Your task to perform on an android device: toggle notification dots Image 0: 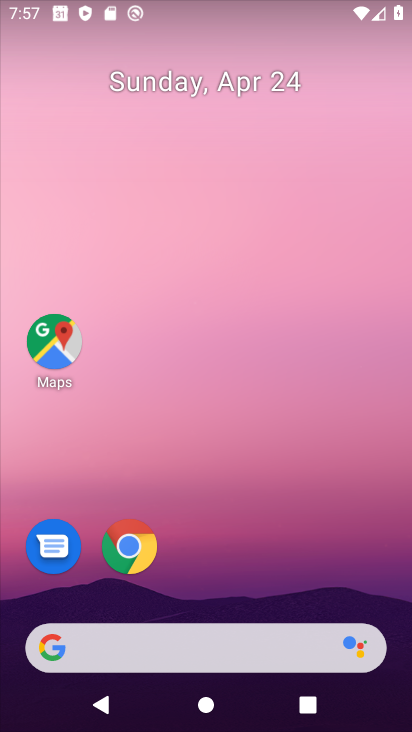
Step 0: drag from (255, 586) to (310, 69)
Your task to perform on an android device: toggle notification dots Image 1: 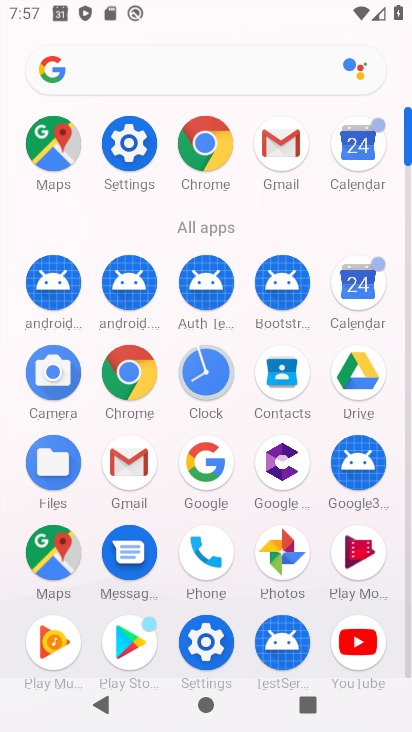
Step 1: click (146, 159)
Your task to perform on an android device: toggle notification dots Image 2: 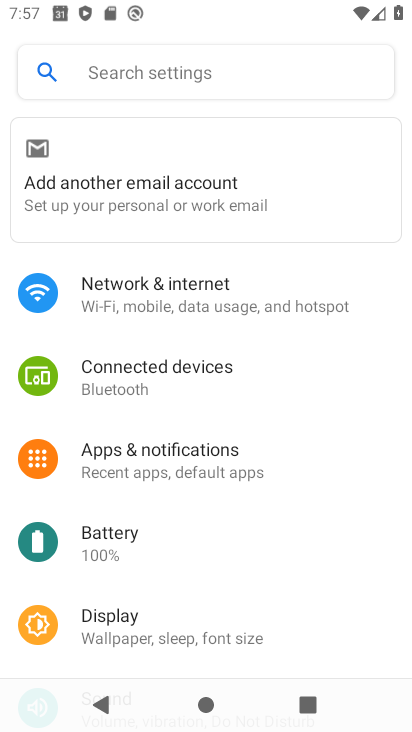
Step 2: click (209, 457)
Your task to perform on an android device: toggle notification dots Image 3: 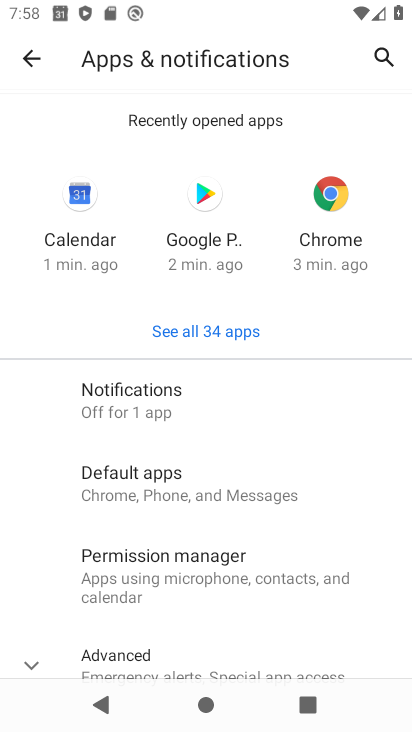
Step 3: drag from (178, 416) to (258, 188)
Your task to perform on an android device: toggle notification dots Image 4: 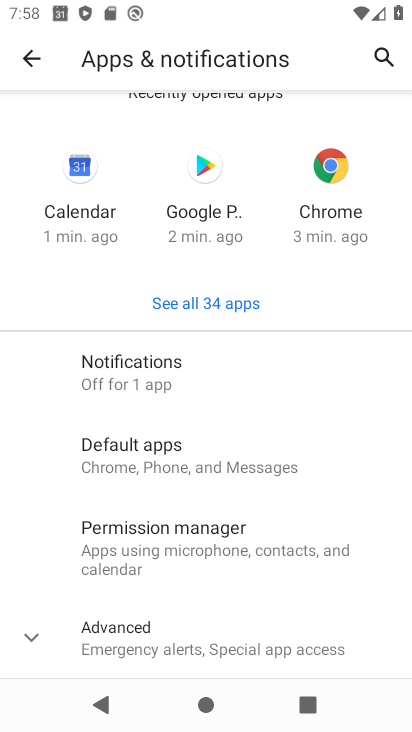
Step 4: click (167, 641)
Your task to perform on an android device: toggle notification dots Image 5: 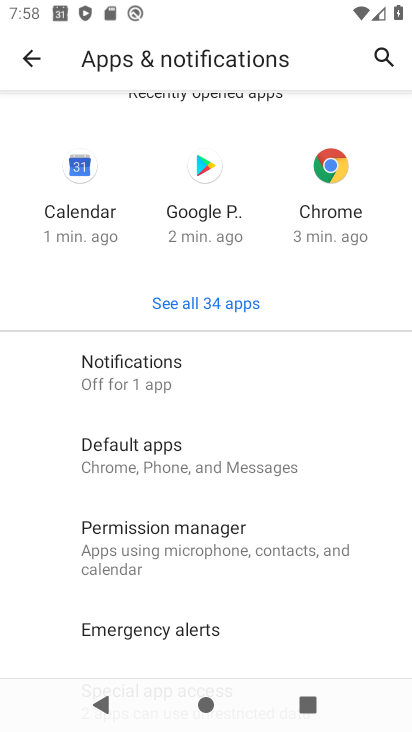
Step 5: drag from (182, 623) to (256, 433)
Your task to perform on an android device: toggle notification dots Image 6: 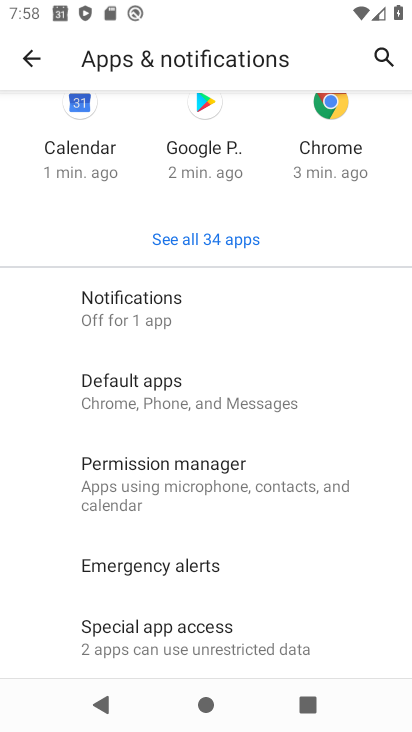
Step 6: drag from (256, 554) to (328, 250)
Your task to perform on an android device: toggle notification dots Image 7: 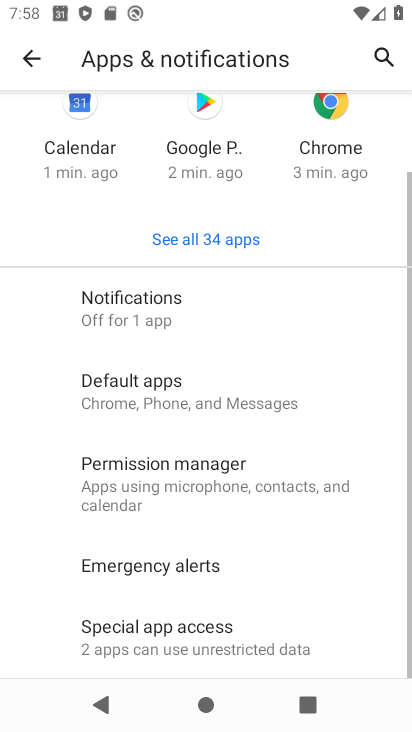
Step 7: click (221, 307)
Your task to perform on an android device: toggle notification dots Image 8: 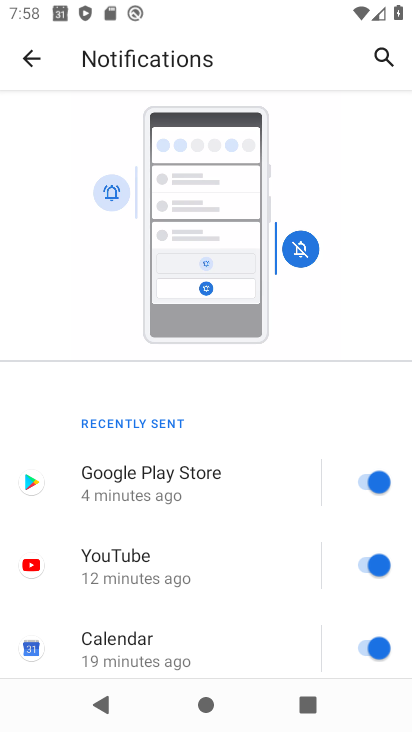
Step 8: drag from (169, 634) to (241, 345)
Your task to perform on an android device: toggle notification dots Image 9: 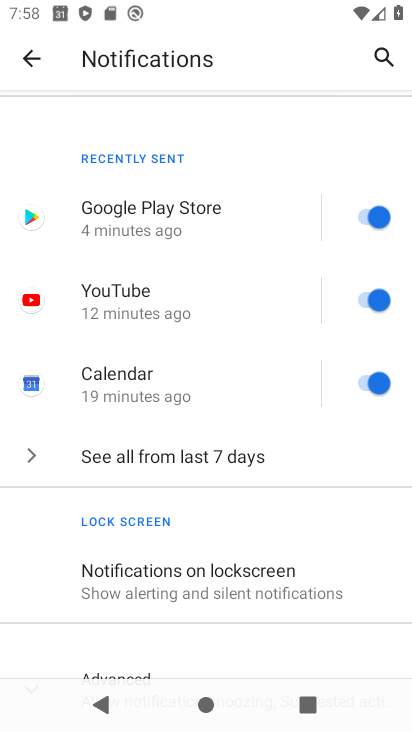
Step 9: drag from (238, 631) to (294, 209)
Your task to perform on an android device: toggle notification dots Image 10: 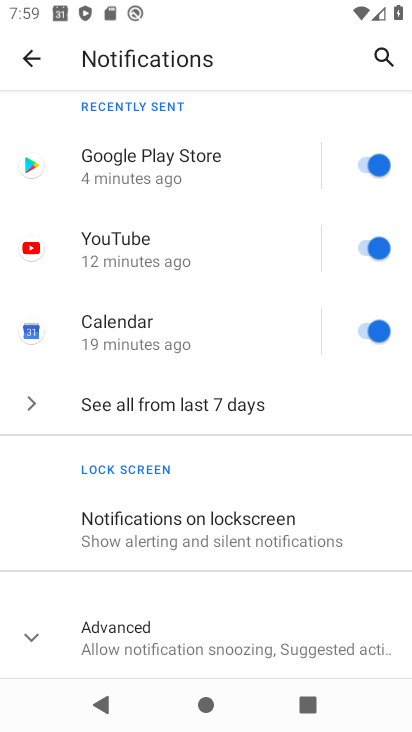
Step 10: click (224, 601)
Your task to perform on an android device: toggle notification dots Image 11: 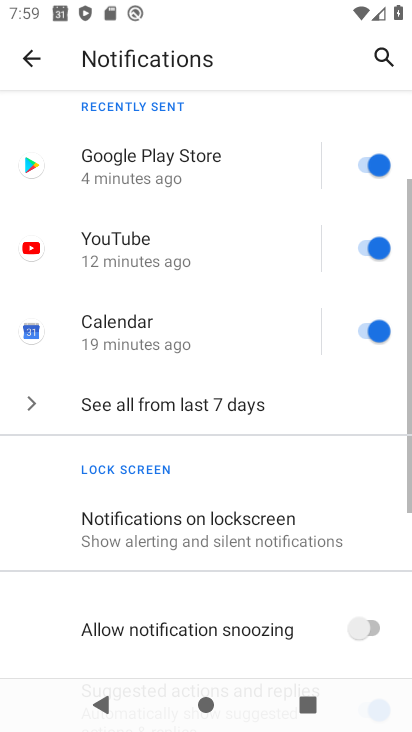
Step 11: drag from (224, 598) to (250, 261)
Your task to perform on an android device: toggle notification dots Image 12: 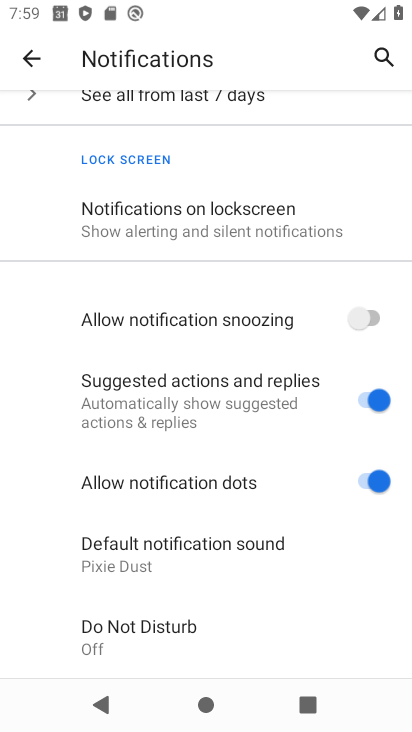
Step 12: click (350, 485)
Your task to perform on an android device: toggle notification dots Image 13: 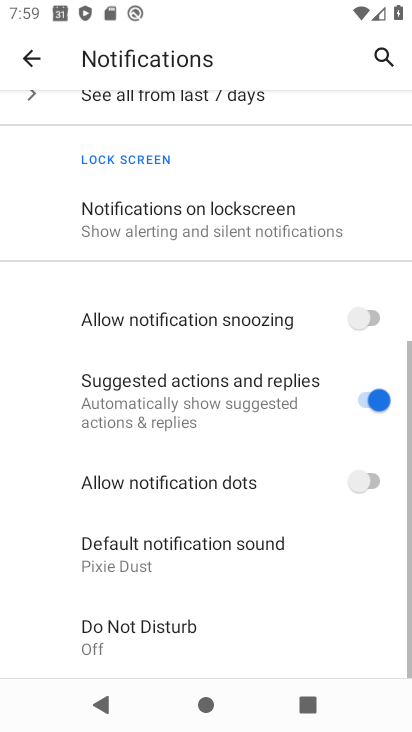
Step 13: task complete